Your task to perform on an android device: What's the weather going to be tomorrow? Image 0: 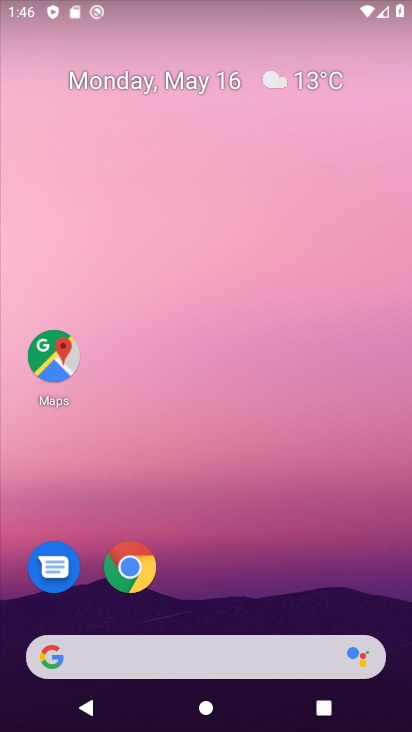
Step 0: drag from (215, 504) to (150, 38)
Your task to perform on an android device: What's the weather going to be tomorrow? Image 1: 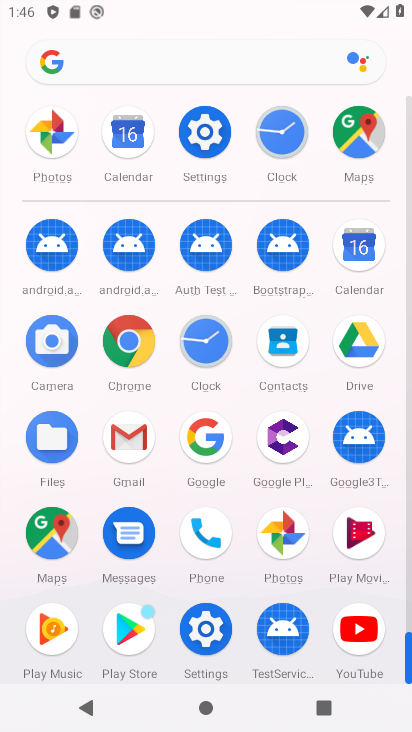
Step 1: press home button
Your task to perform on an android device: What's the weather going to be tomorrow? Image 2: 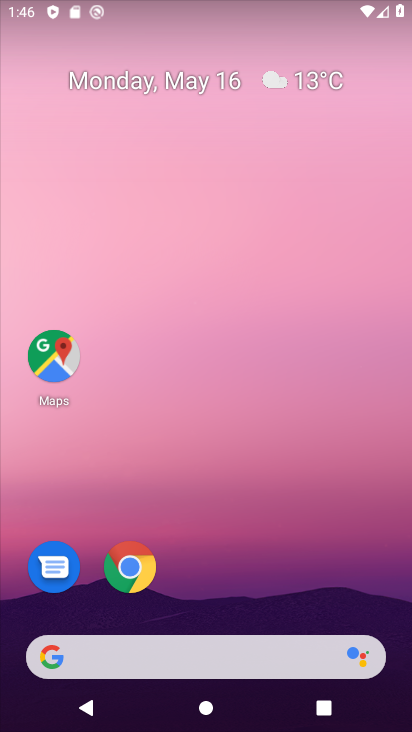
Step 2: click (191, 650)
Your task to perform on an android device: What's the weather going to be tomorrow? Image 3: 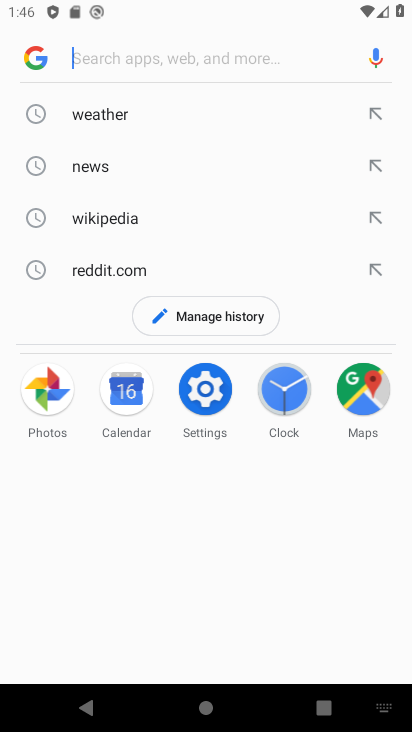
Step 3: click (96, 113)
Your task to perform on an android device: What's the weather going to be tomorrow? Image 4: 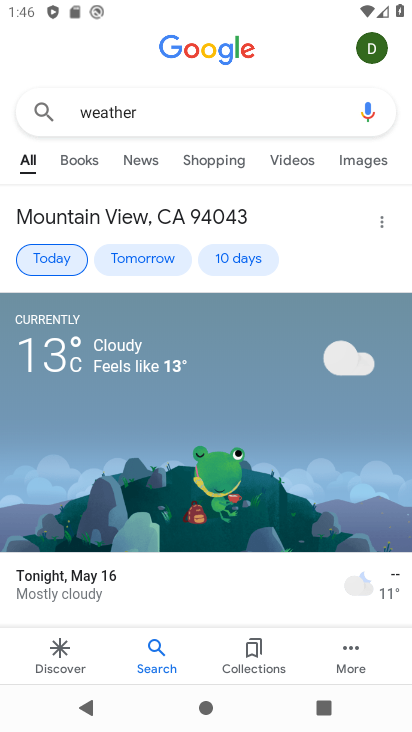
Step 4: click (143, 253)
Your task to perform on an android device: What's the weather going to be tomorrow? Image 5: 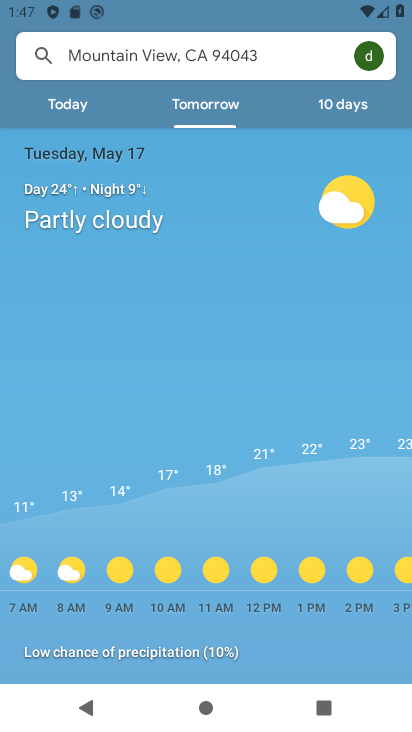
Step 5: task complete